Your task to perform on an android device: turn off javascript in the chrome app Image 0: 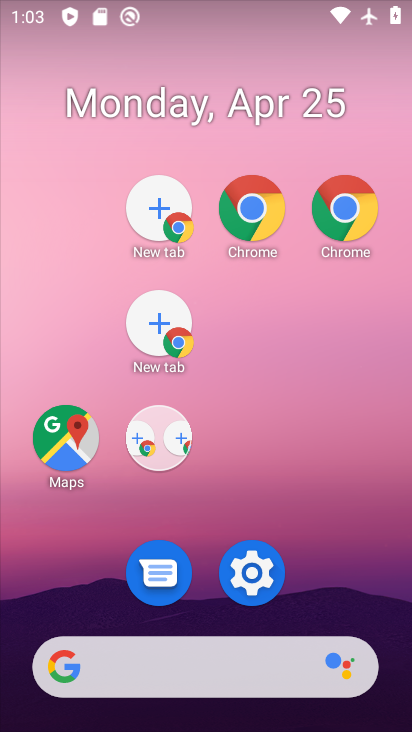
Step 0: drag from (272, 454) to (221, 120)
Your task to perform on an android device: turn off javascript in the chrome app Image 1: 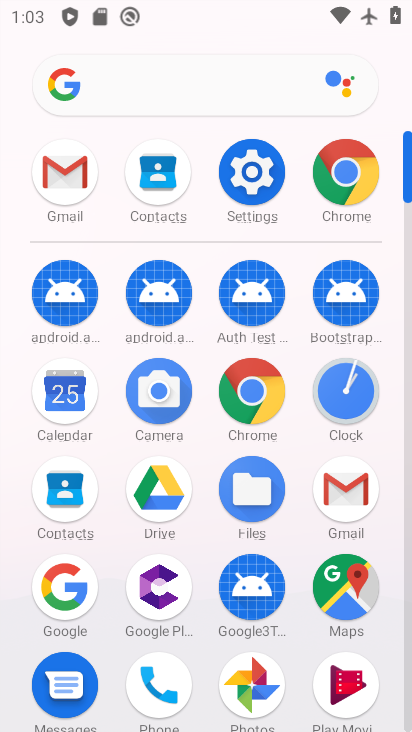
Step 1: click (340, 159)
Your task to perform on an android device: turn off javascript in the chrome app Image 2: 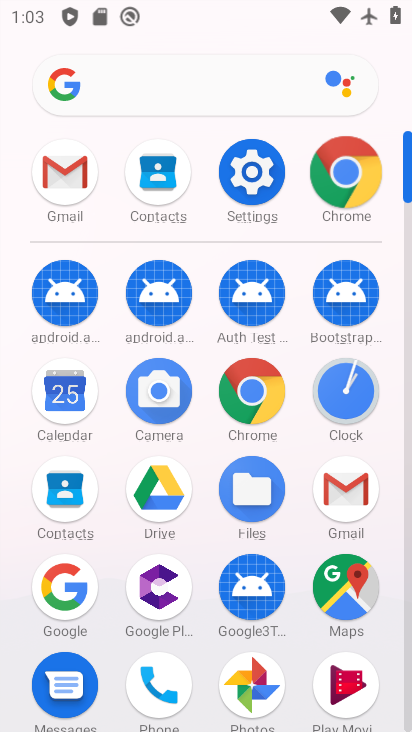
Step 2: click (341, 161)
Your task to perform on an android device: turn off javascript in the chrome app Image 3: 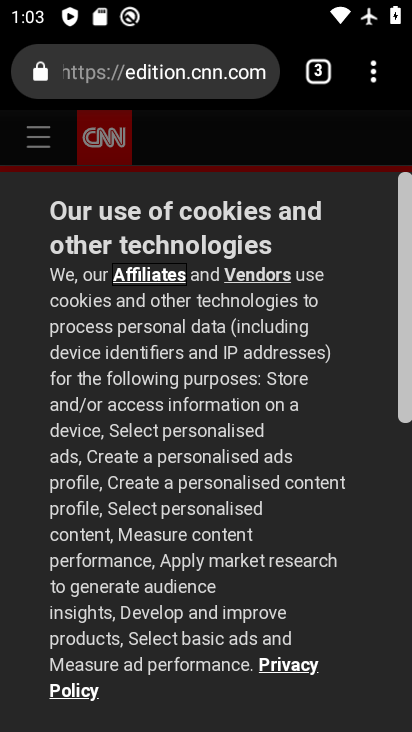
Step 3: drag from (373, 74) to (192, 269)
Your task to perform on an android device: turn off javascript in the chrome app Image 4: 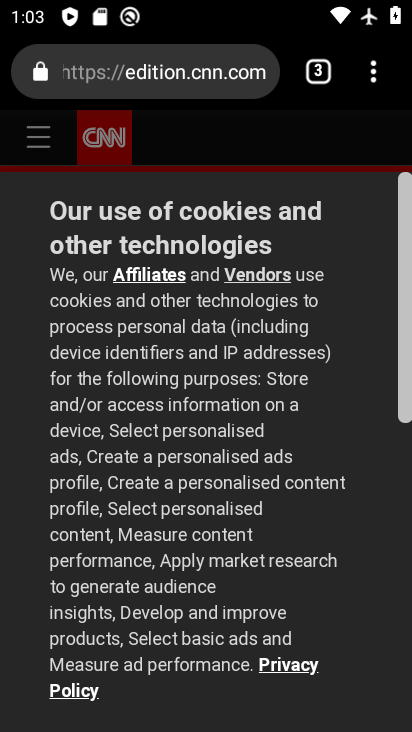
Step 4: drag from (172, 568) to (137, 210)
Your task to perform on an android device: turn off javascript in the chrome app Image 5: 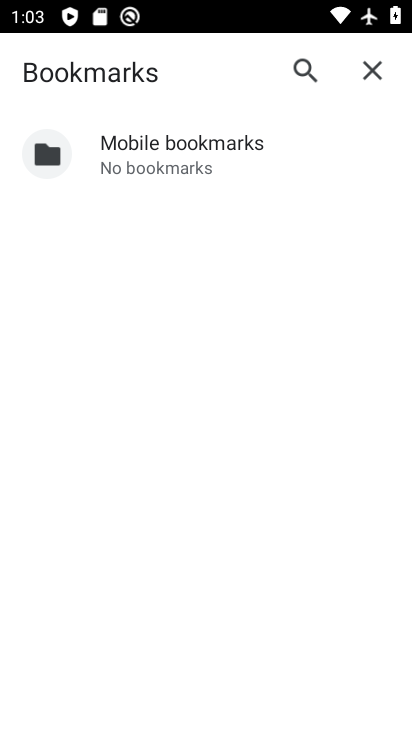
Step 5: click (378, 65)
Your task to perform on an android device: turn off javascript in the chrome app Image 6: 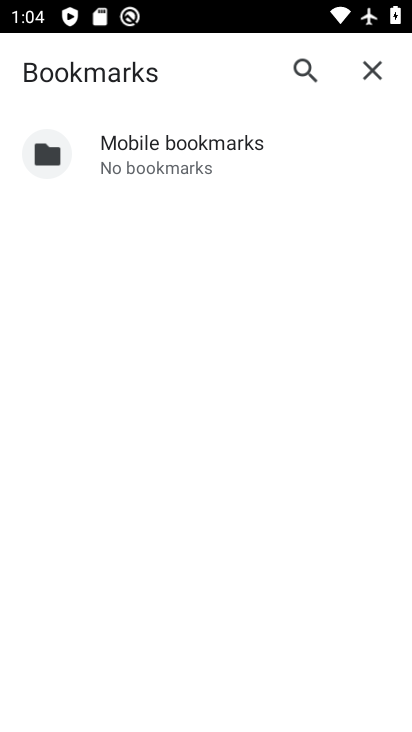
Step 6: click (372, 63)
Your task to perform on an android device: turn off javascript in the chrome app Image 7: 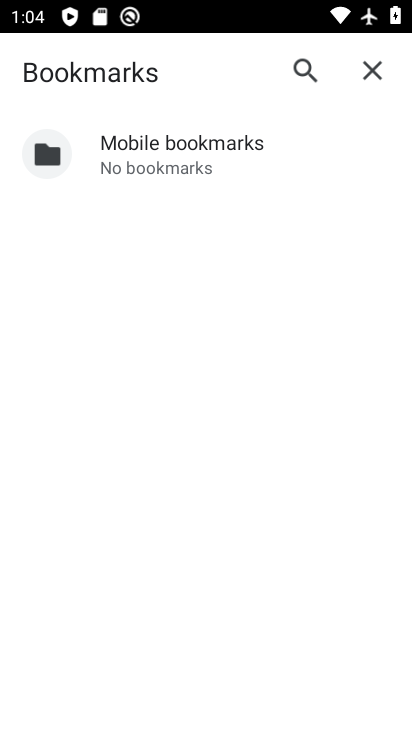
Step 7: click (372, 63)
Your task to perform on an android device: turn off javascript in the chrome app Image 8: 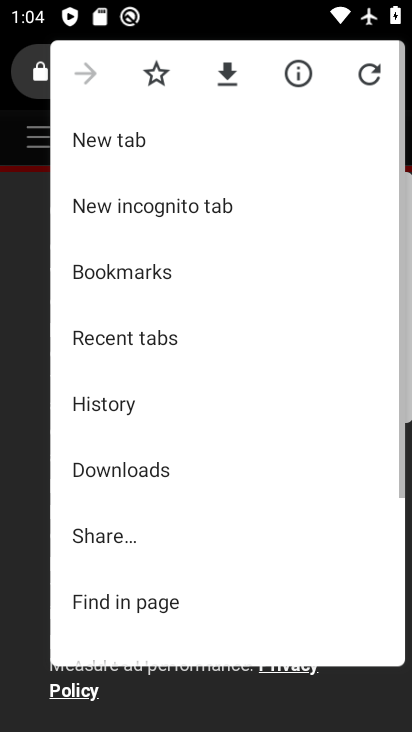
Step 8: drag from (372, 63) to (185, 189)
Your task to perform on an android device: turn off javascript in the chrome app Image 9: 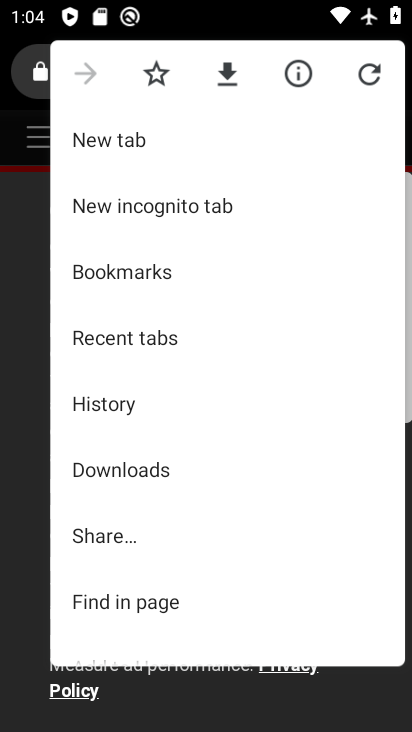
Step 9: drag from (184, 570) to (153, 205)
Your task to perform on an android device: turn off javascript in the chrome app Image 10: 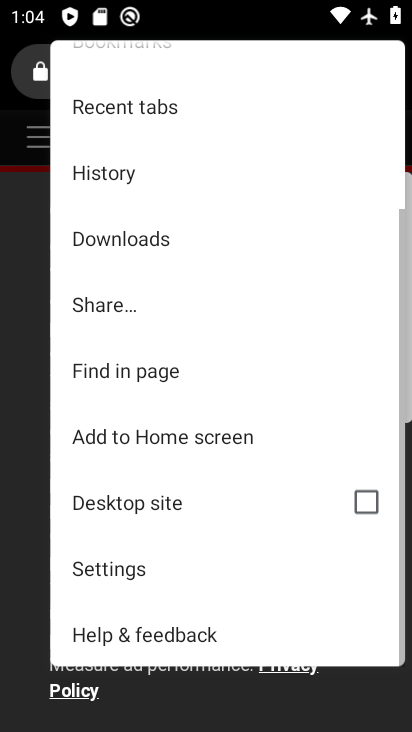
Step 10: click (118, 560)
Your task to perform on an android device: turn off javascript in the chrome app Image 11: 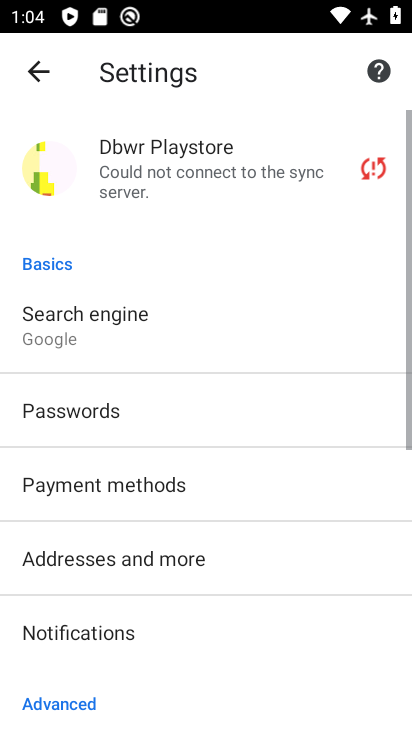
Step 11: drag from (151, 536) to (101, 186)
Your task to perform on an android device: turn off javascript in the chrome app Image 12: 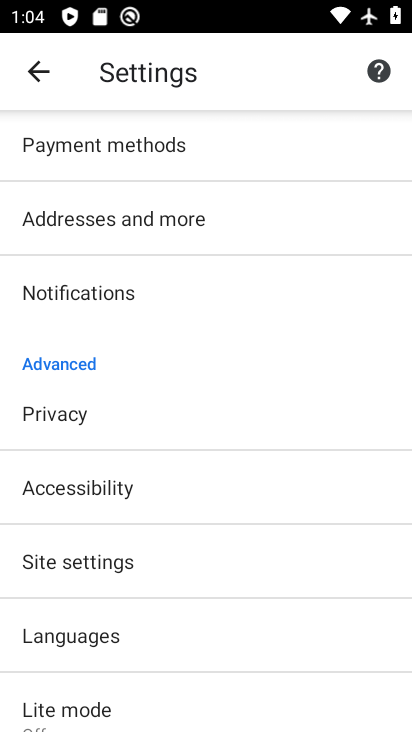
Step 12: click (71, 554)
Your task to perform on an android device: turn off javascript in the chrome app Image 13: 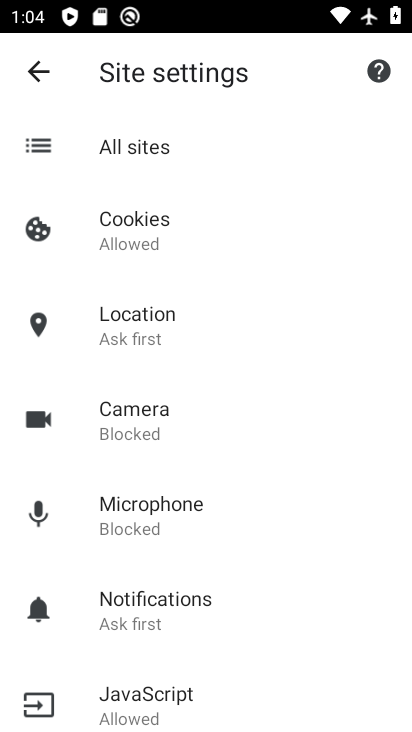
Step 13: drag from (188, 627) to (162, 107)
Your task to perform on an android device: turn off javascript in the chrome app Image 14: 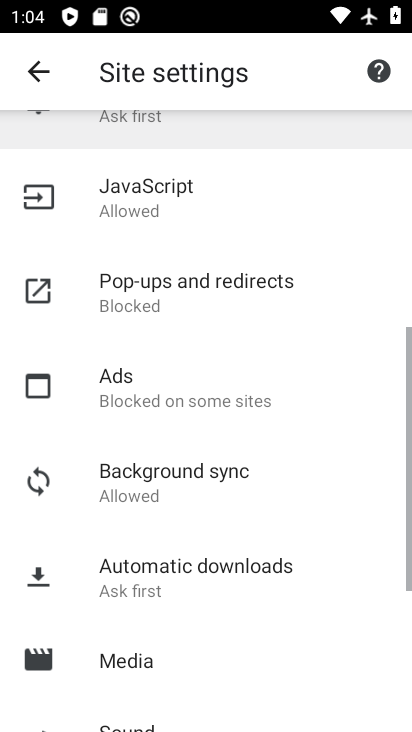
Step 14: drag from (191, 604) to (203, 99)
Your task to perform on an android device: turn off javascript in the chrome app Image 15: 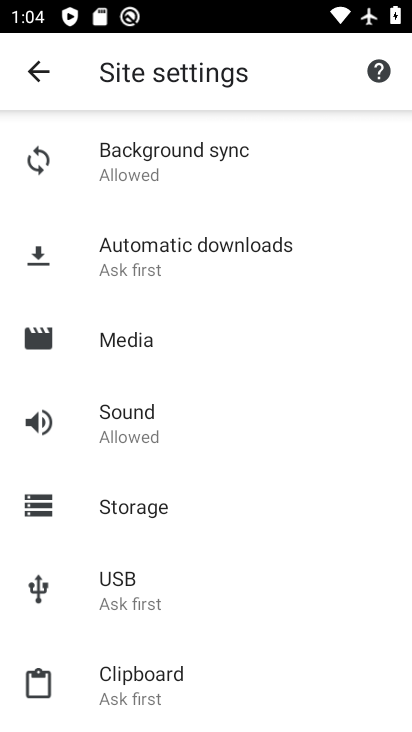
Step 15: drag from (138, 253) to (142, 600)
Your task to perform on an android device: turn off javascript in the chrome app Image 16: 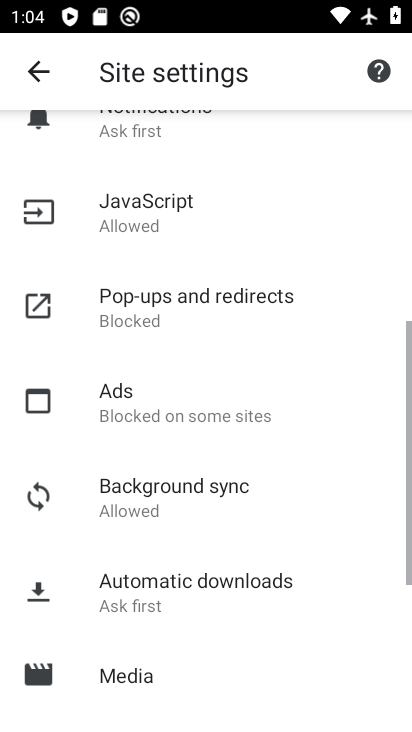
Step 16: click (141, 211)
Your task to perform on an android device: turn off javascript in the chrome app Image 17: 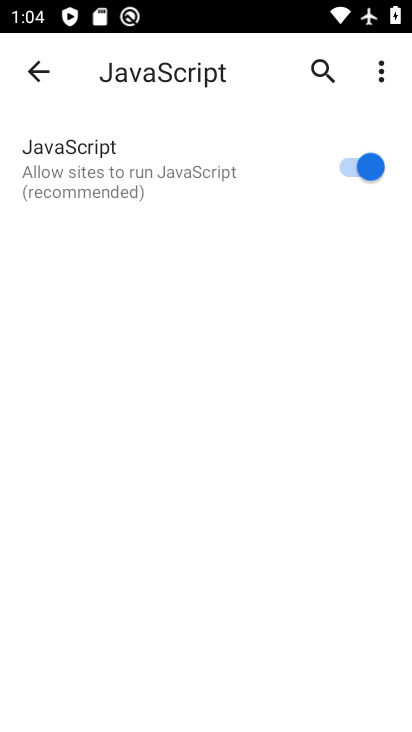
Step 17: click (365, 167)
Your task to perform on an android device: turn off javascript in the chrome app Image 18: 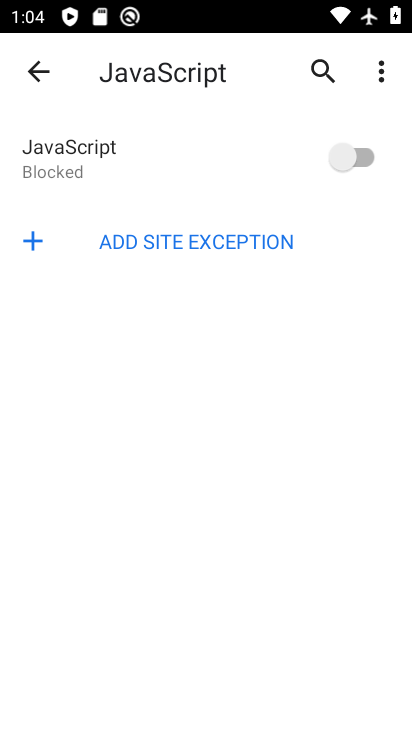
Step 18: task complete